Your task to perform on an android device: turn on location history Image 0: 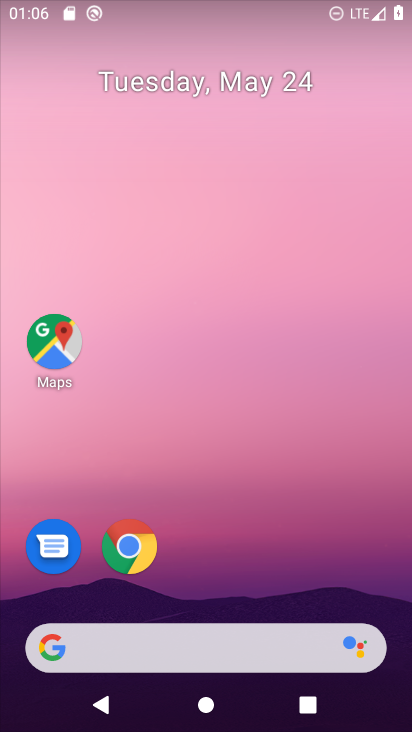
Step 0: drag from (318, 640) to (334, 25)
Your task to perform on an android device: turn on location history Image 1: 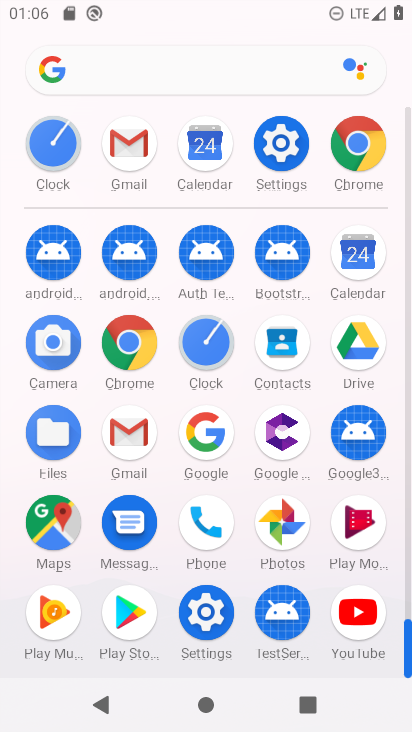
Step 1: click (284, 147)
Your task to perform on an android device: turn on location history Image 2: 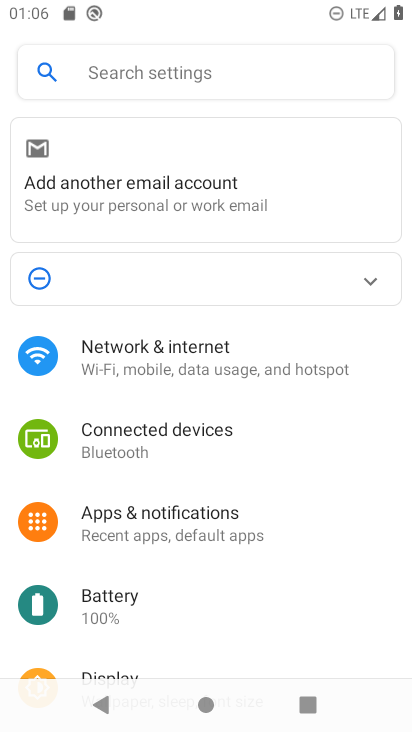
Step 2: drag from (195, 587) to (204, 262)
Your task to perform on an android device: turn on location history Image 3: 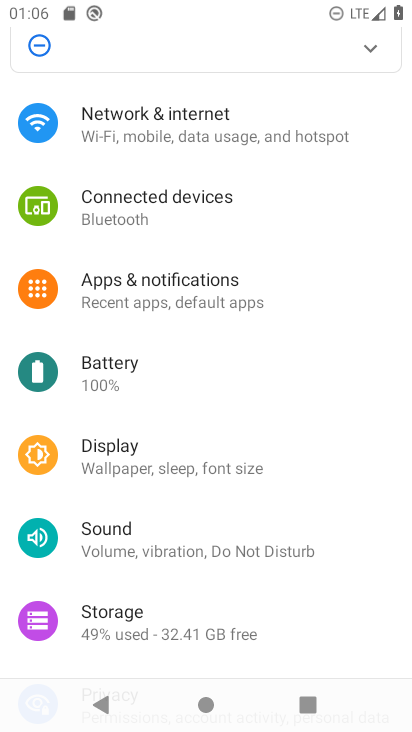
Step 3: drag from (183, 610) to (189, 112)
Your task to perform on an android device: turn on location history Image 4: 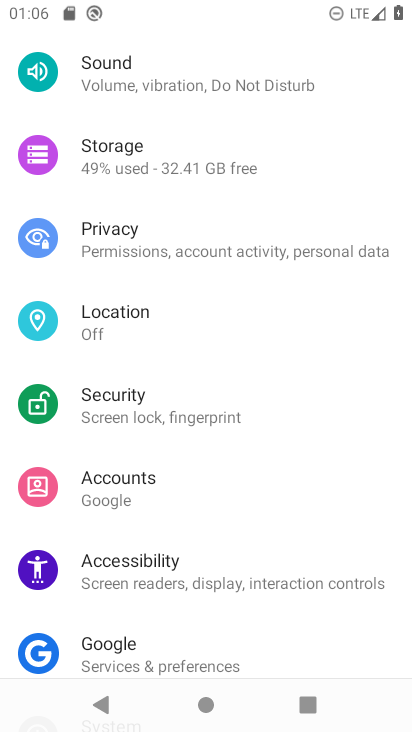
Step 4: click (124, 319)
Your task to perform on an android device: turn on location history Image 5: 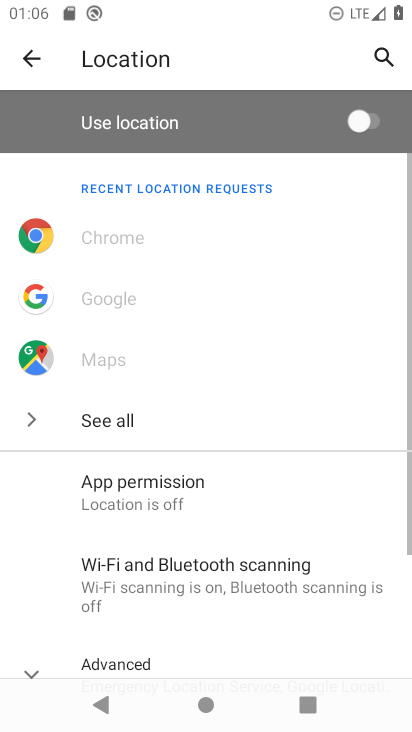
Step 5: drag from (193, 633) to (244, 227)
Your task to perform on an android device: turn on location history Image 6: 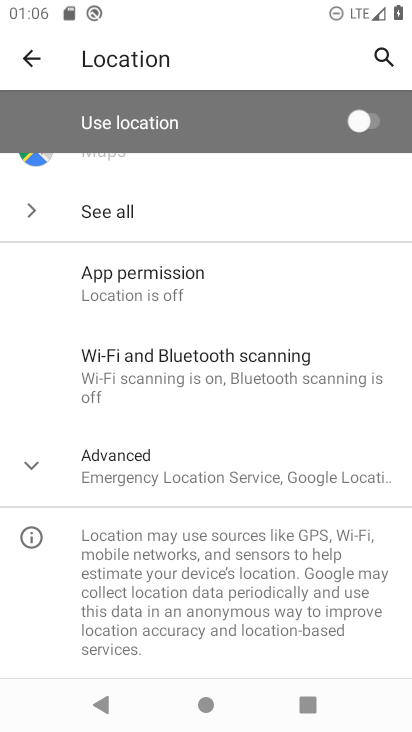
Step 6: click (163, 480)
Your task to perform on an android device: turn on location history Image 7: 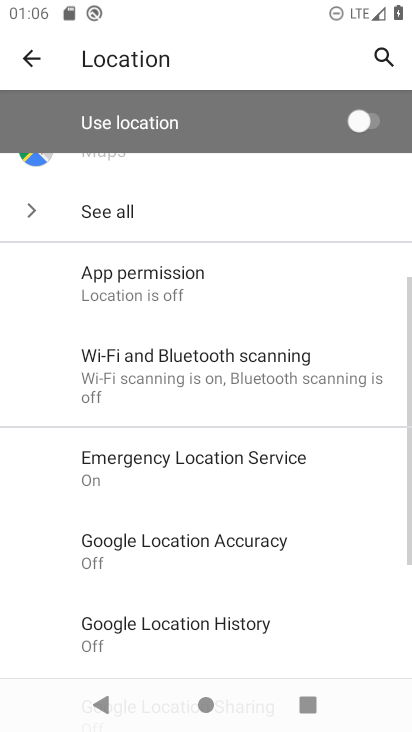
Step 7: click (232, 642)
Your task to perform on an android device: turn on location history Image 8: 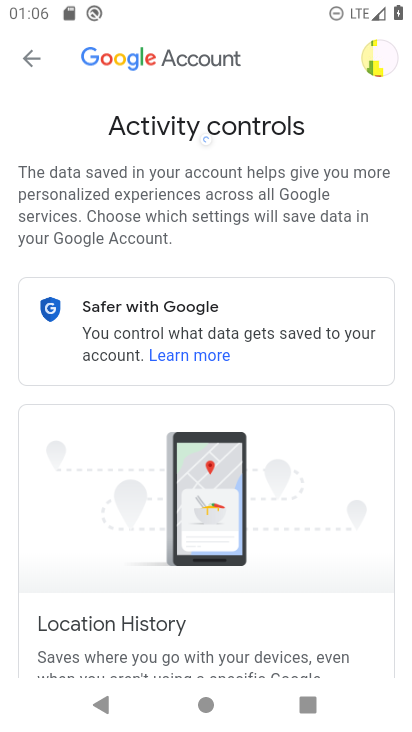
Step 8: task complete